Your task to perform on an android device: What is the recent news? Image 0: 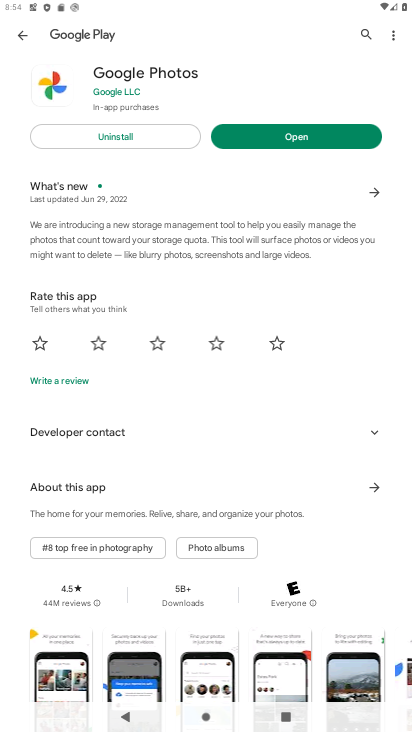
Step 0: press home button
Your task to perform on an android device: What is the recent news? Image 1: 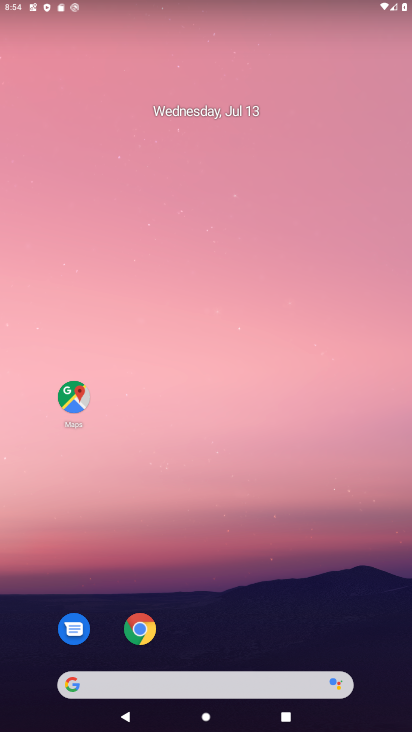
Step 1: drag from (320, 608) to (299, 71)
Your task to perform on an android device: What is the recent news? Image 2: 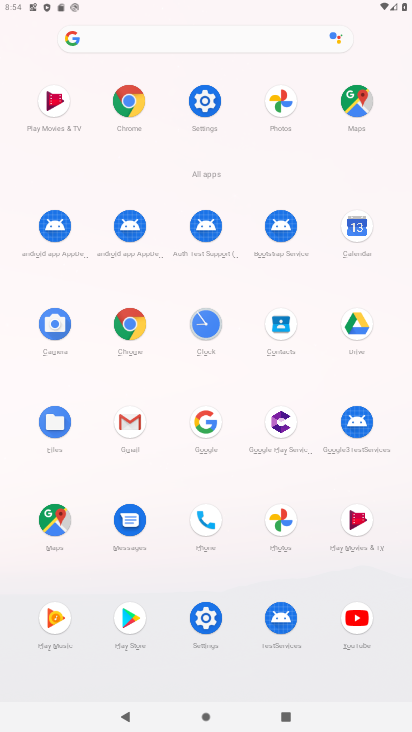
Step 2: click (126, 324)
Your task to perform on an android device: What is the recent news? Image 3: 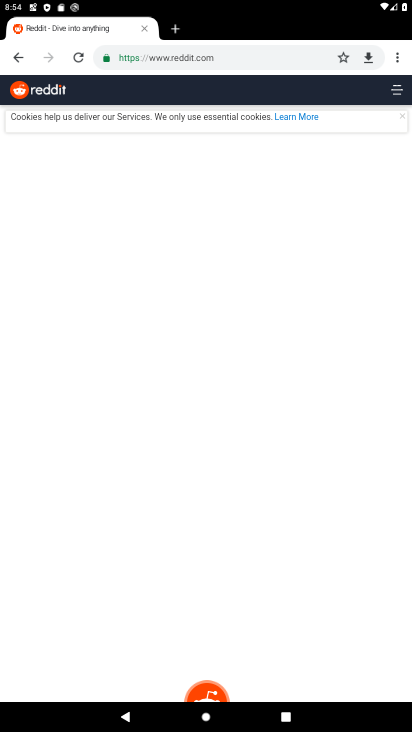
Step 3: click (217, 51)
Your task to perform on an android device: What is the recent news? Image 4: 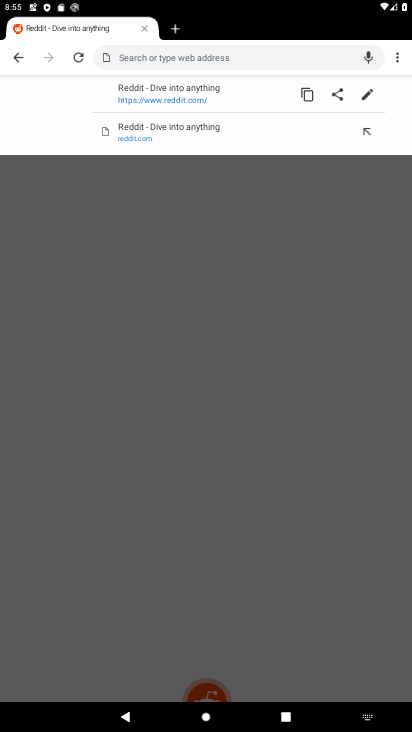
Step 4: type "what is the recent news "
Your task to perform on an android device: What is the recent news? Image 5: 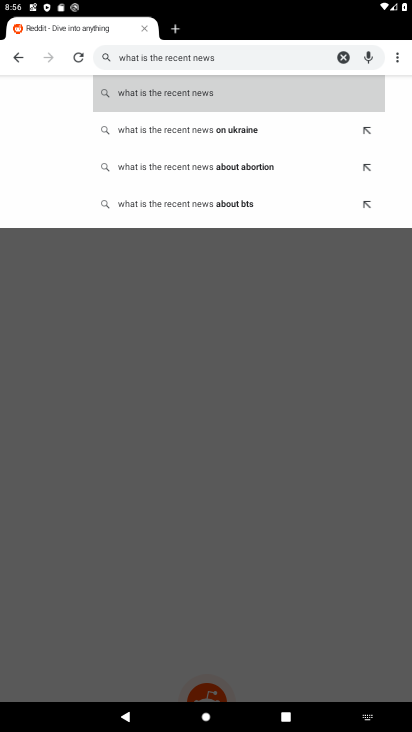
Step 5: click (191, 98)
Your task to perform on an android device: What is the recent news? Image 6: 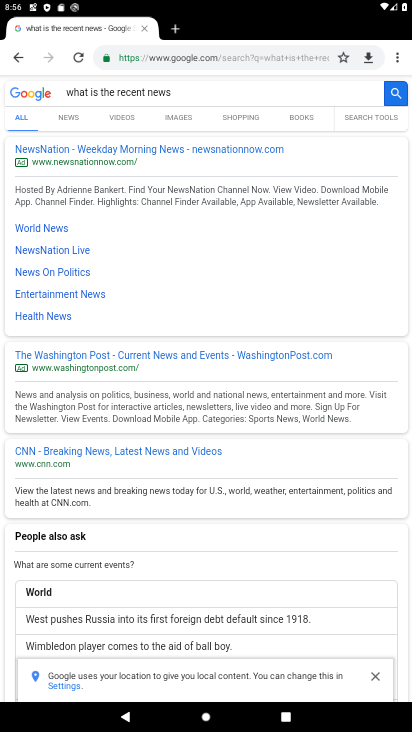
Step 6: click (63, 119)
Your task to perform on an android device: What is the recent news? Image 7: 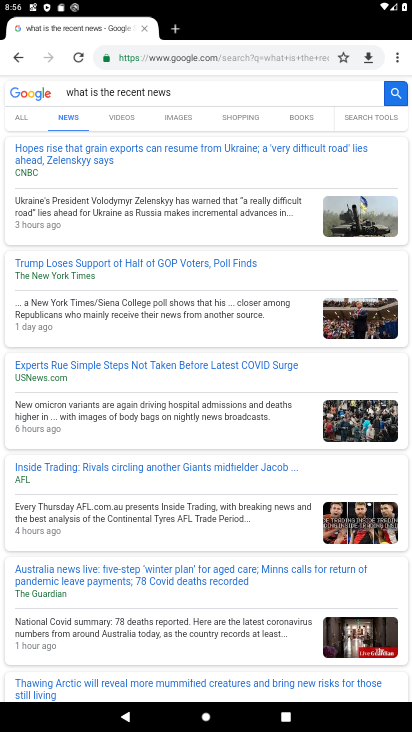
Step 7: task complete